Your task to perform on an android device: Search for Italian restaurants on Maps Image 0: 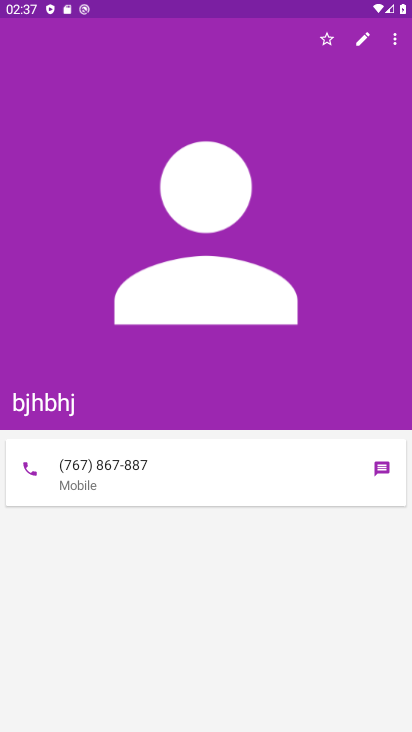
Step 0: press home button
Your task to perform on an android device: Search for Italian restaurants on Maps Image 1: 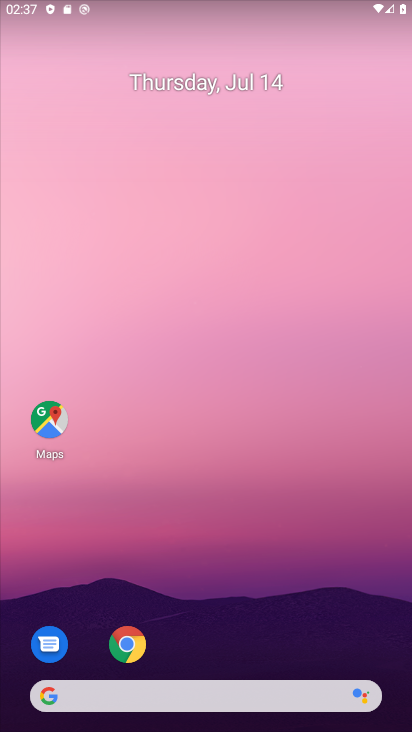
Step 1: drag from (254, 631) to (141, 78)
Your task to perform on an android device: Search for Italian restaurants on Maps Image 2: 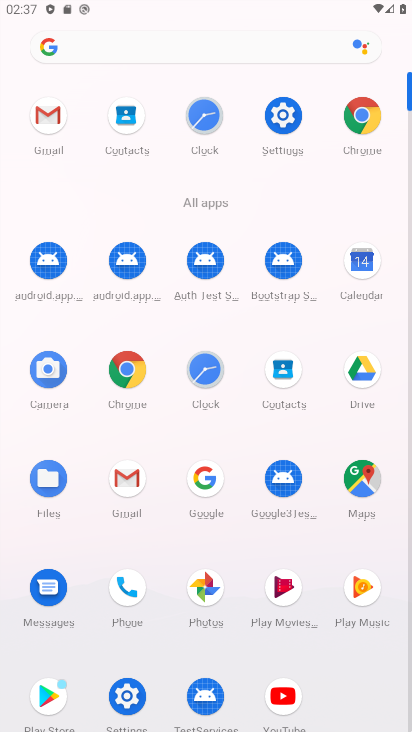
Step 2: click (369, 496)
Your task to perform on an android device: Search for Italian restaurants on Maps Image 3: 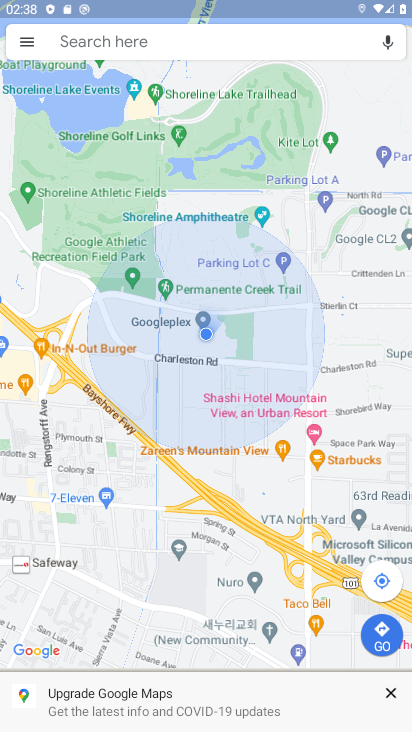
Step 3: click (129, 29)
Your task to perform on an android device: Search for Italian restaurants on Maps Image 4: 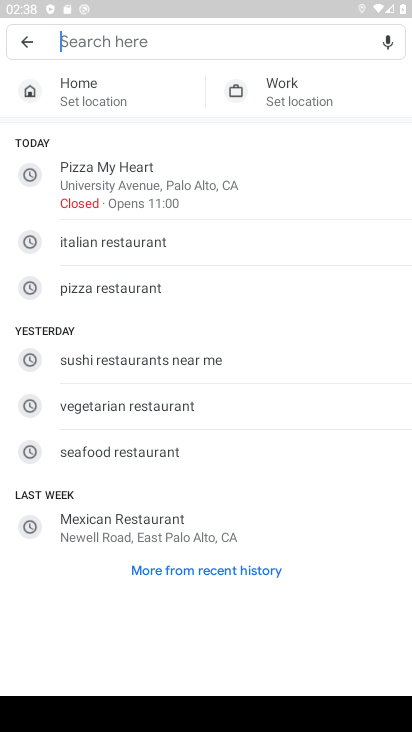
Step 4: type "Italian restaurants"
Your task to perform on an android device: Search for Italian restaurants on Maps Image 5: 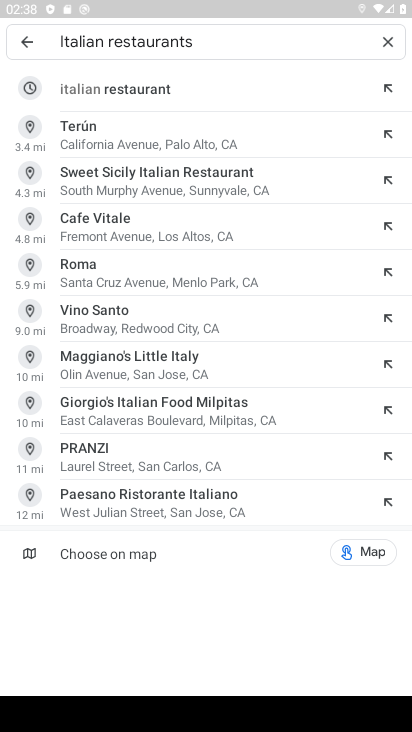
Step 5: click (194, 78)
Your task to perform on an android device: Search for Italian restaurants on Maps Image 6: 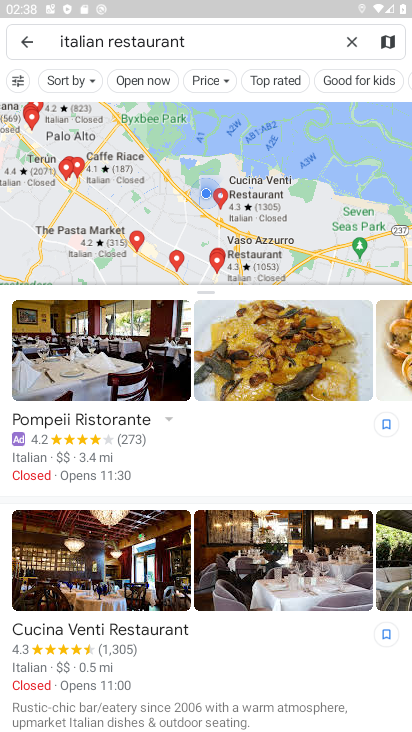
Step 6: task complete